Your task to perform on an android device: add a contact Image 0: 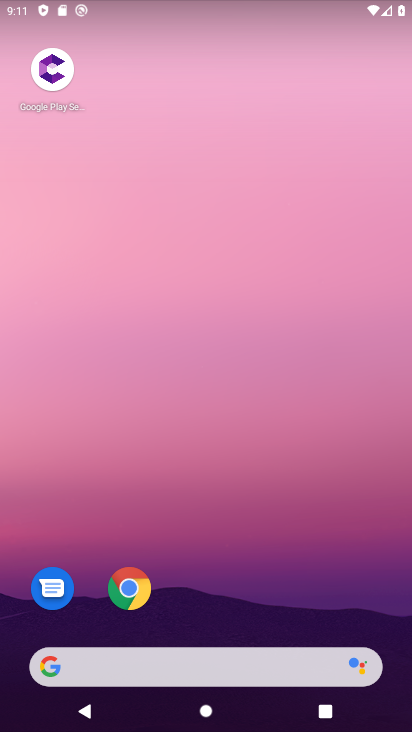
Step 0: drag from (234, 624) to (162, 10)
Your task to perform on an android device: add a contact Image 1: 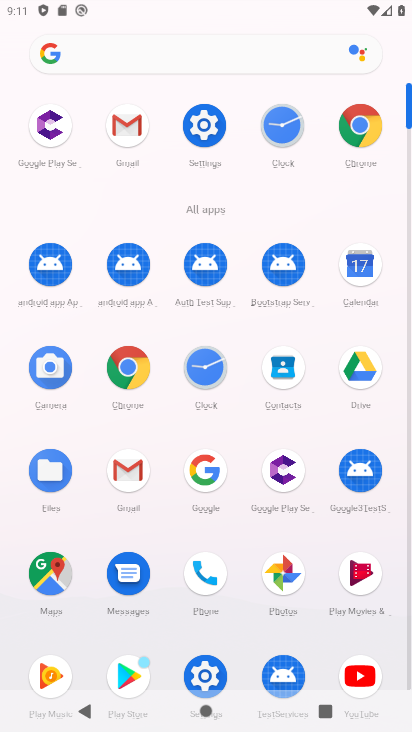
Step 1: click (213, 574)
Your task to perform on an android device: add a contact Image 2: 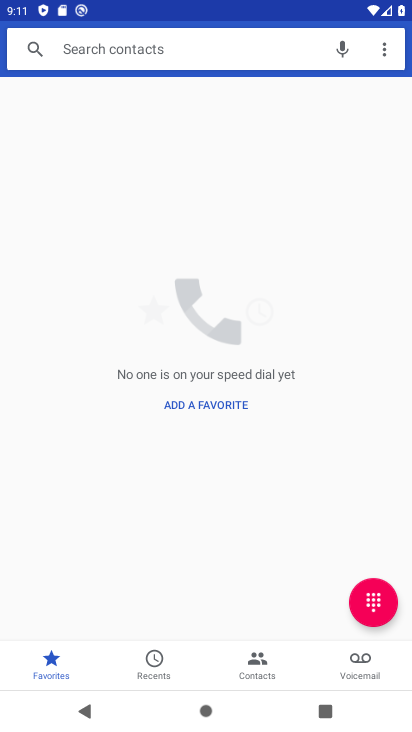
Step 2: click (228, 707)
Your task to perform on an android device: add a contact Image 3: 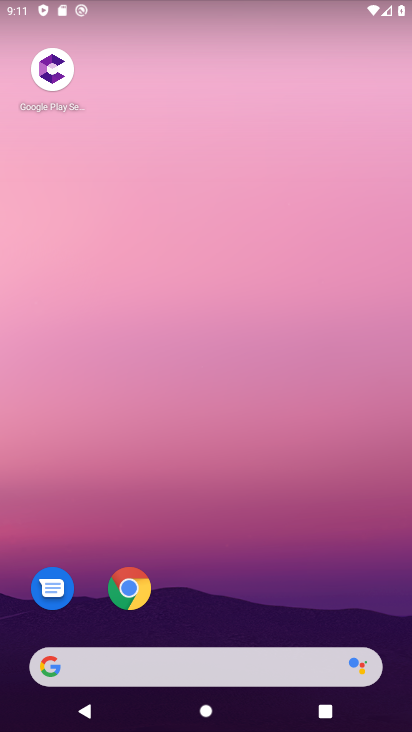
Step 3: drag from (224, 626) to (170, 18)
Your task to perform on an android device: add a contact Image 4: 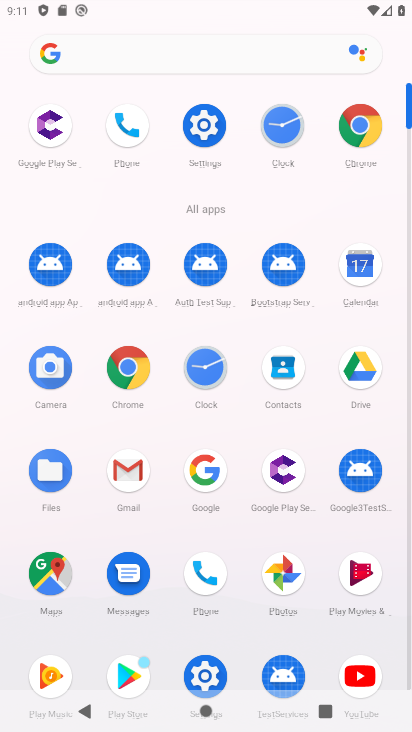
Step 4: click (201, 562)
Your task to perform on an android device: add a contact Image 5: 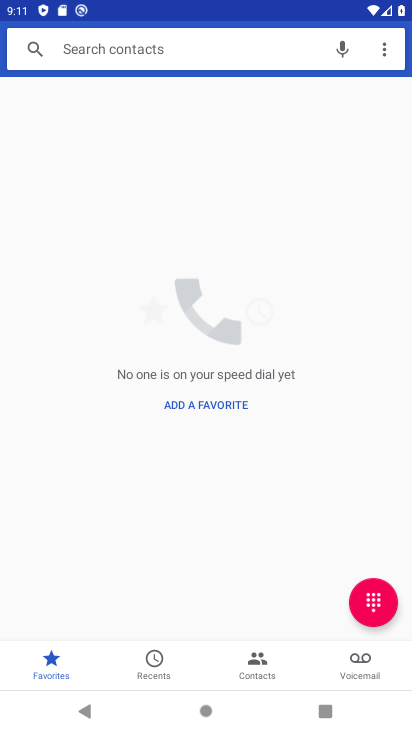
Step 5: click (270, 661)
Your task to perform on an android device: add a contact Image 6: 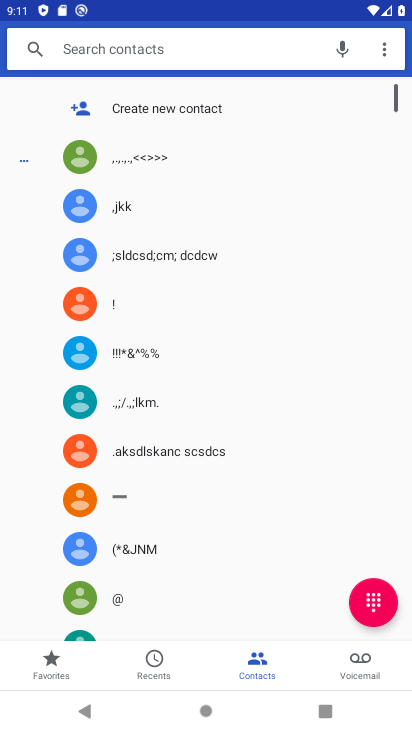
Step 6: click (165, 109)
Your task to perform on an android device: add a contact Image 7: 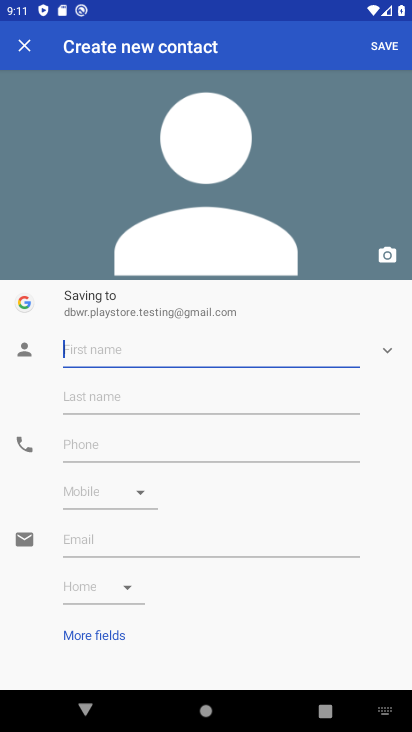
Step 7: type "vg"
Your task to perform on an android device: add a contact Image 8: 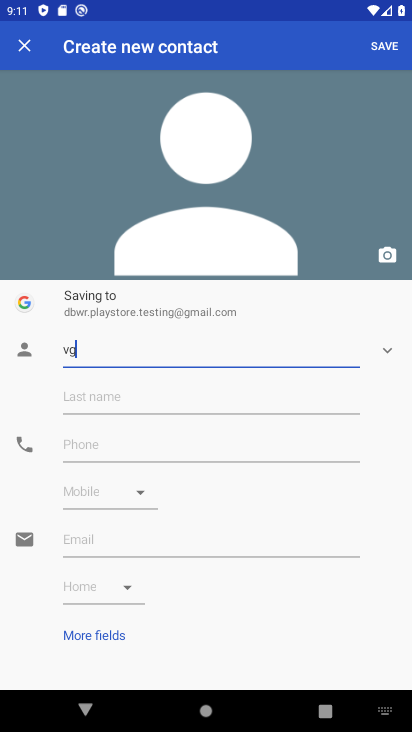
Step 8: type ""
Your task to perform on an android device: add a contact Image 9: 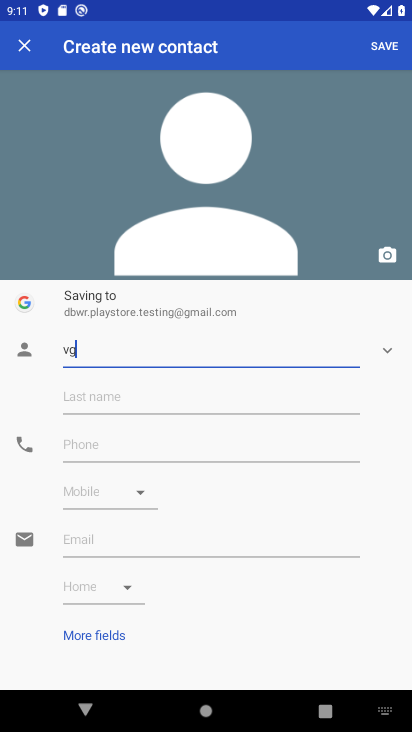
Step 9: click (162, 449)
Your task to perform on an android device: add a contact Image 10: 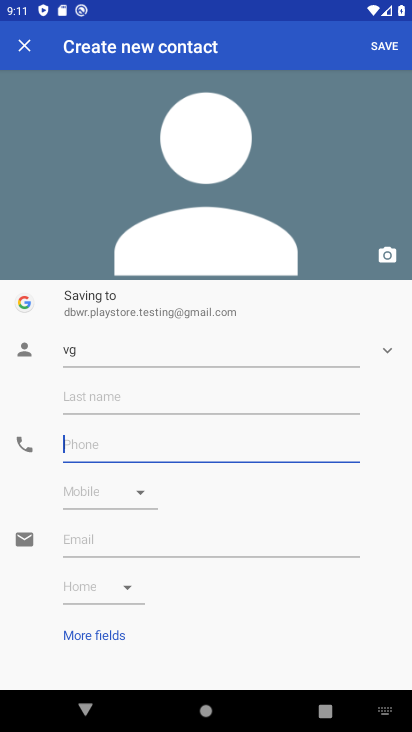
Step 10: type "4444"
Your task to perform on an android device: add a contact Image 11: 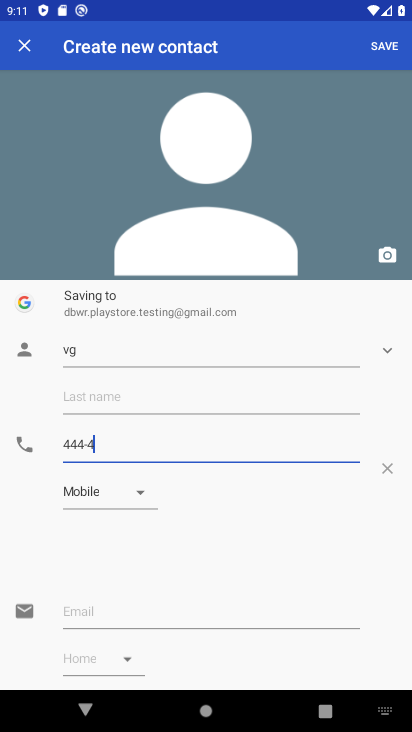
Step 11: type ""
Your task to perform on an android device: add a contact Image 12: 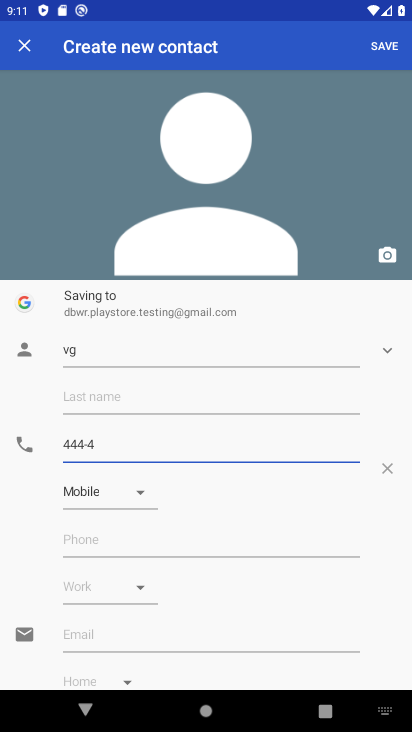
Step 12: click (392, 52)
Your task to perform on an android device: add a contact Image 13: 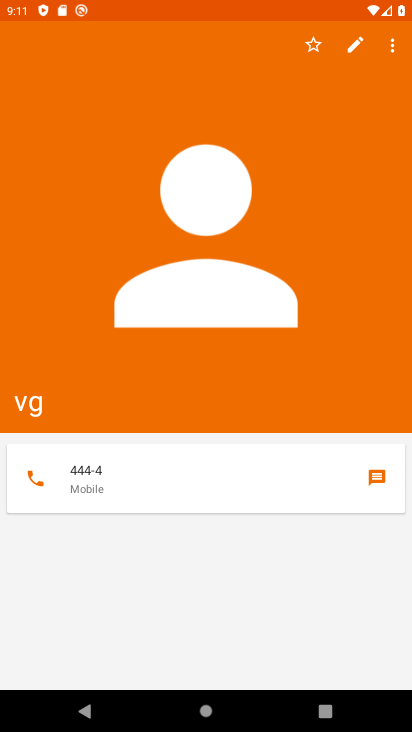
Step 13: task complete